Your task to perform on an android device: View the shopping cart on costco. Add "dell xps" to the cart on costco Image 0: 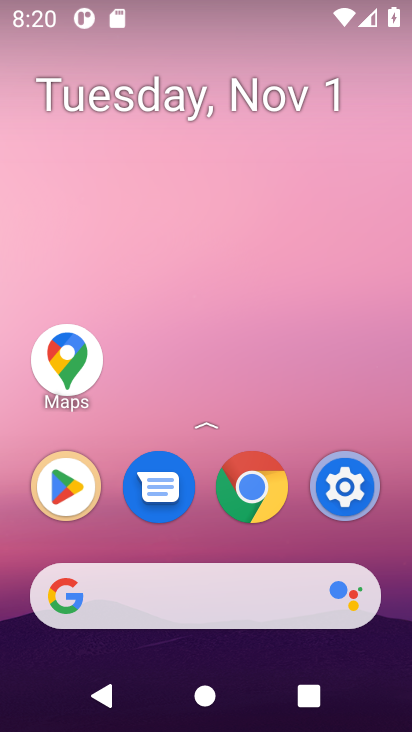
Step 0: drag from (201, 436) to (217, 28)
Your task to perform on an android device: View the shopping cart on costco. Add "dell xps" to the cart on costco Image 1: 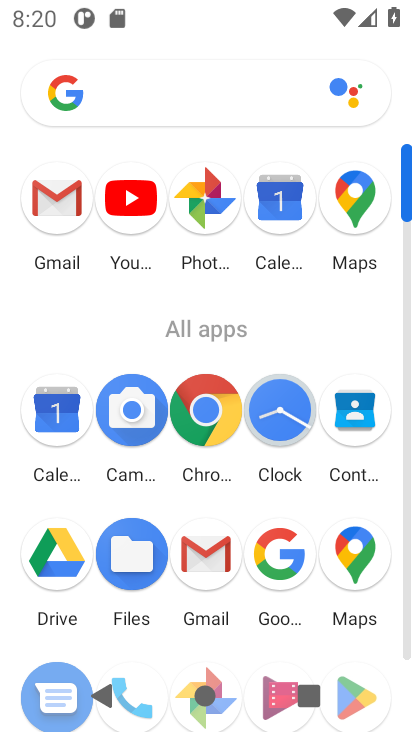
Step 1: click (203, 405)
Your task to perform on an android device: View the shopping cart on costco. Add "dell xps" to the cart on costco Image 2: 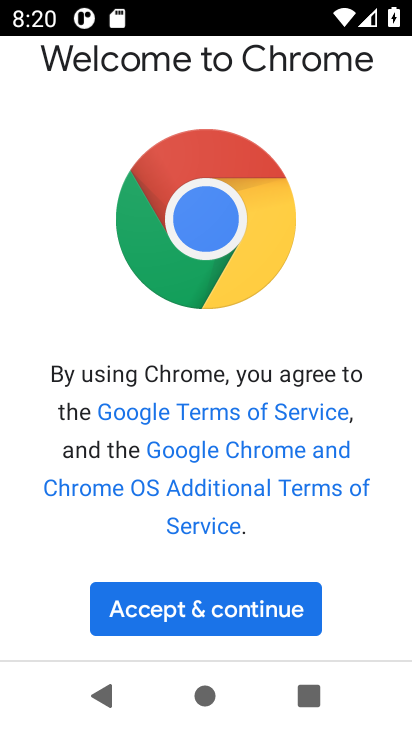
Step 2: click (199, 599)
Your task to perform on an android device: View the shopping cart on costco. Add "dell xps" to the cart on costco Image 3: 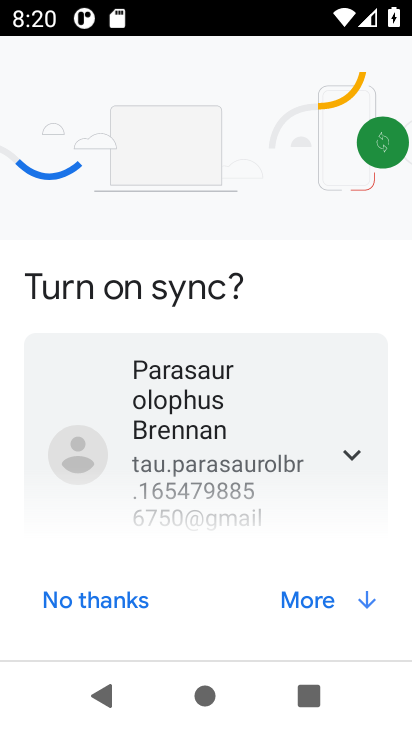
Step 3: click (321, 607)
Your task to perform on an android device: View the shopping cart on costco. Add "dell xps" to the cart on costco Image 4: 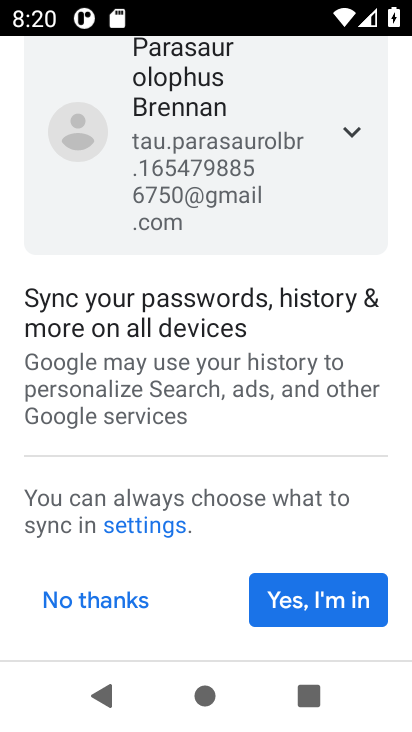
Step 4: click (321, 607)
Your task to perform on an android device: View the shopping cart on costco. Add "dell xps" to the cart on costco Image 5: 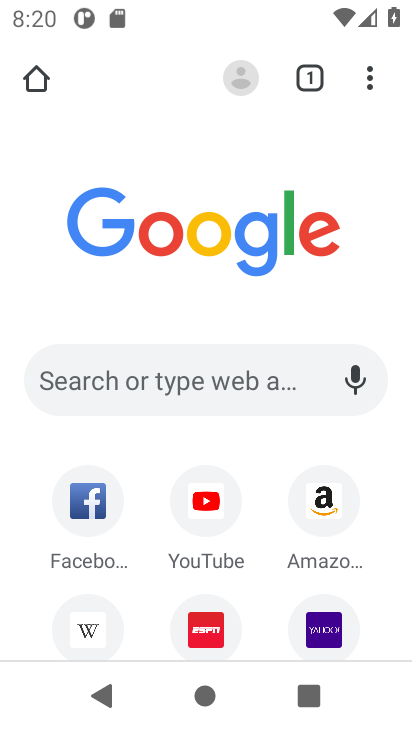
Step 5: click (113, 385)
Your task to perform on an android device: View the shopping cart on costco. Add "dell xps" to the cart on costco Image 6: 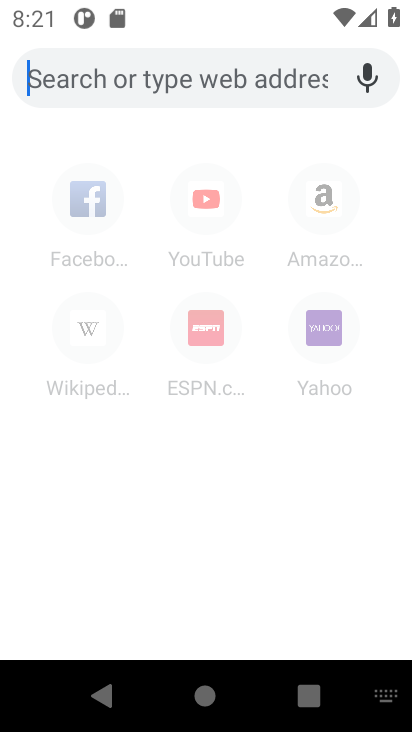
Step 6: type "costco"
Your task to perform on an android device: View the shopping cart on costco. Add "dell xps" to the cart on costco Image 7: 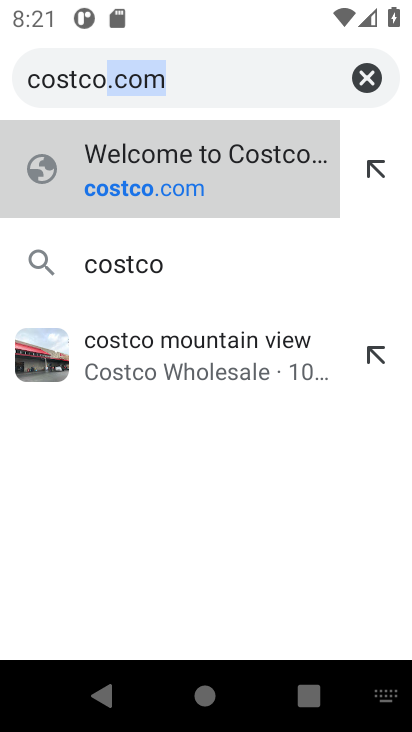
Step 7: click (121, 181)
Your task to perform on an android device: View the shopping cart on costco. Add "dell xps" to the cart on costco Image 8: 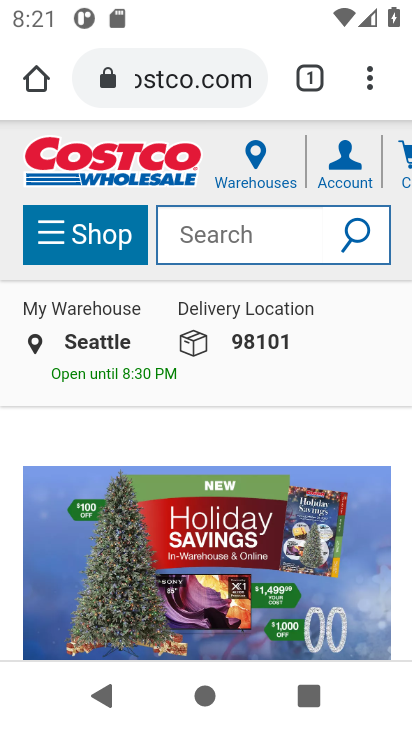
Step 8: click (193, 237)
Your task to perform on an android device: View the shopping cart on costco. Add "dell xps" to the cart on costco Image 9: 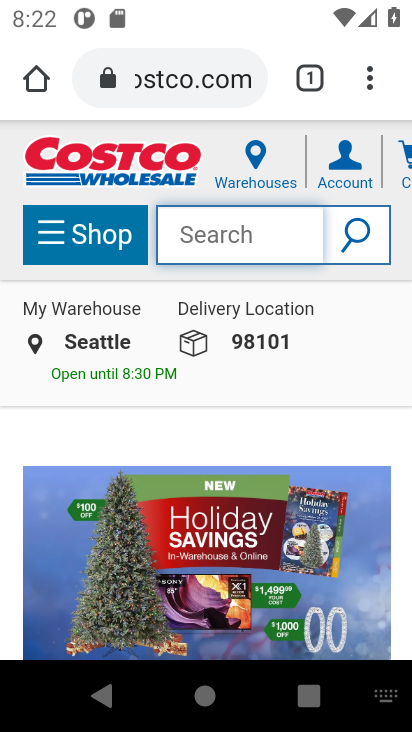
Step 9: type "dell xps"
Your task to perform on an android device: View the shopping cart on costco. Add "dell xps" to the cart on costco Image 10: 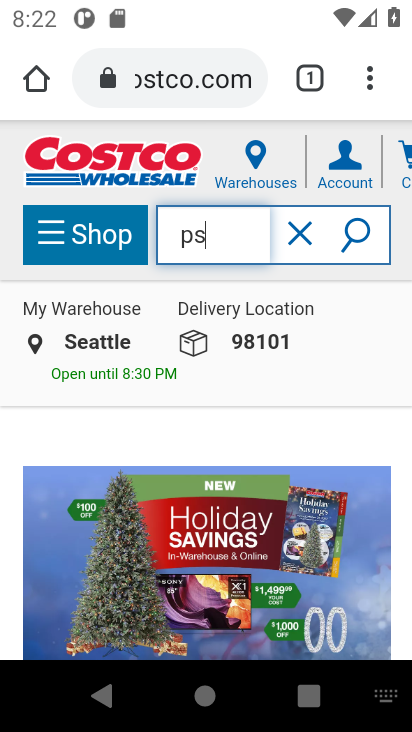
Step 10: type ""
Your task to perform on an android device: View the shopping cart on costco. Add "dell xps" to the cart on costco Image 11: 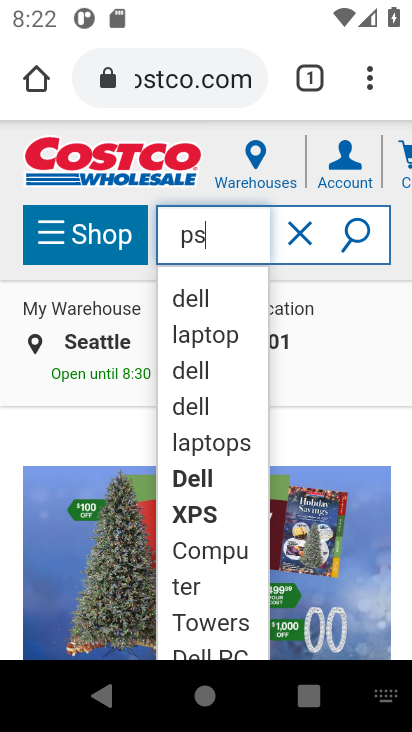
Step 11: click (206, 498)
Your task to perform on an android device: View the shopping cart on costco. Add "dell xps" to the cart on costco Image 12: 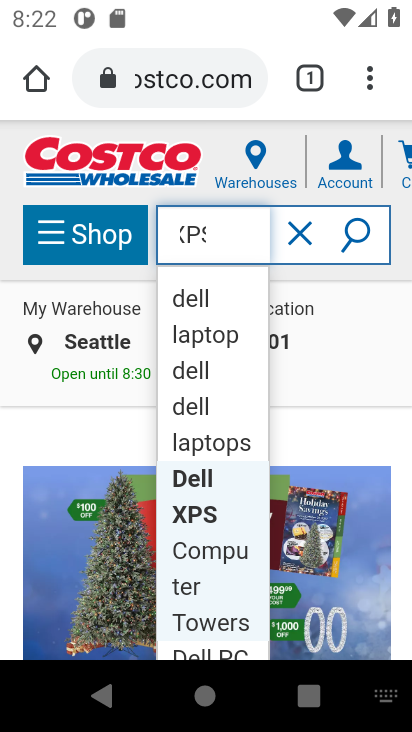
Step 12: click (358, 227)
Your task to perform on an android device: View the shopping cart on costco. Add "dell xps" to the cart on costco Image 13: 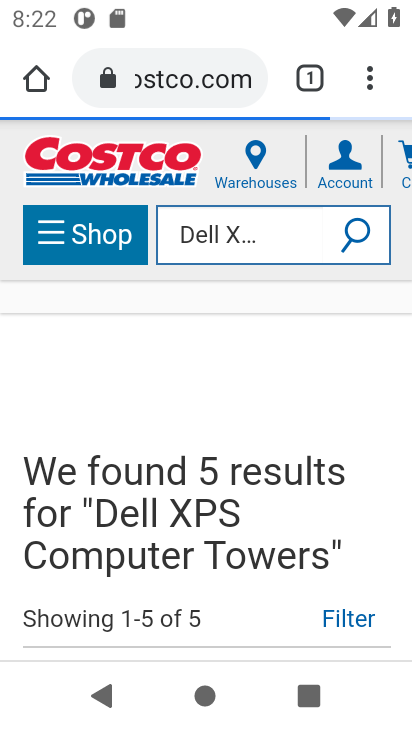
Step 13: drag from (214, 598) to (223, 178)
Your task to perform on an android device: View the shopping cart on costco. Add "dell xps" to the cart on costco Image 14: 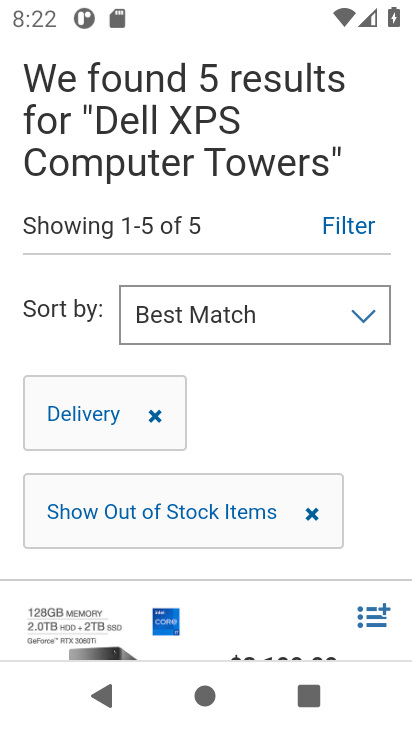
Step 14: drag from (226, 580) to (245, 190)
Your task to perform on an android device: View the shopping cart on costco. Add "dell xps" to the cart on costco Image 15: 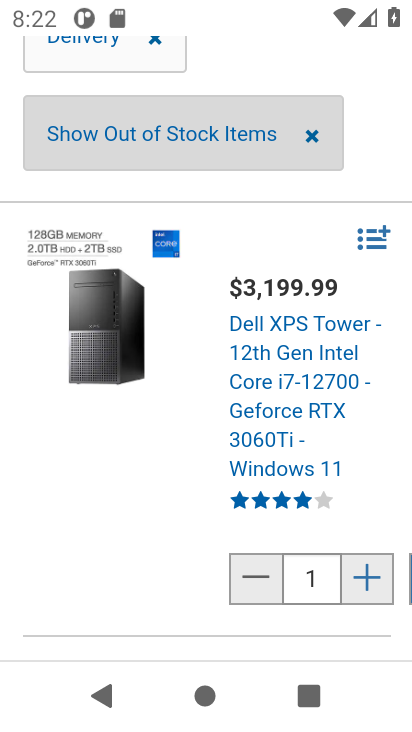
Step 15: drag from (200, 538) to (221, 188)
Your task to perform on an android device: View the shopping cart on costco. Add "dell xps" to the cart on costco Image 16: 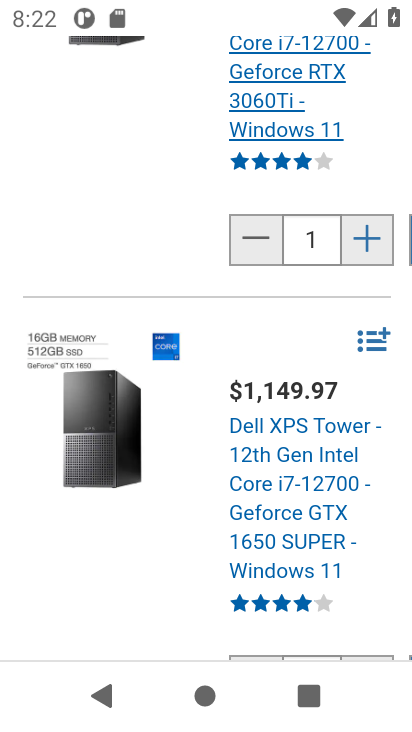
Step 16: click (252, 80)
Your task to perform on an android device: View the shopping cart on costco. Add "dell xps" to the cart on costco Image 17: 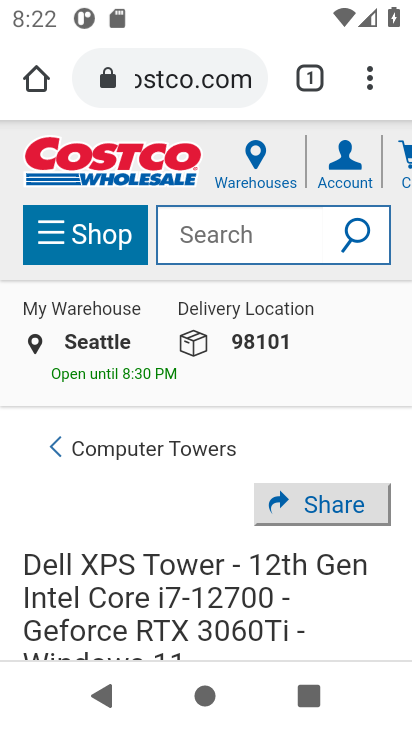
Step 17: drag from (193, 538) to (201, 199)
Your task to perform on an android device: View the shopping cart on costco. Add "dell xps" to the cart on costco Image 18: 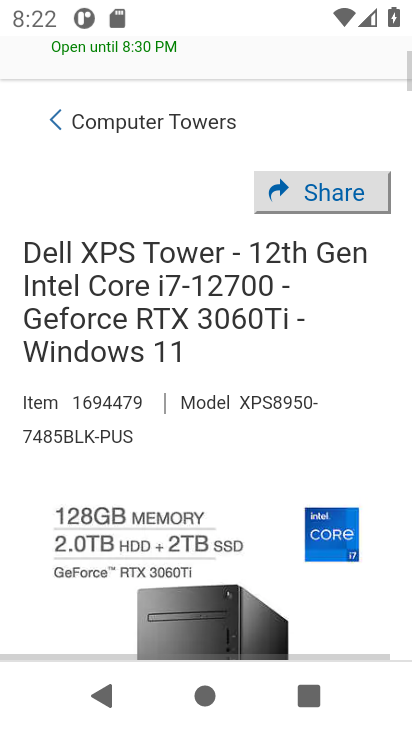
Step 18: drag from (199, 580) to (249, 154)
Your task to perform on an android device: View the shopping cart on costco. Add "dell xps" to the cart on costco Image 19: 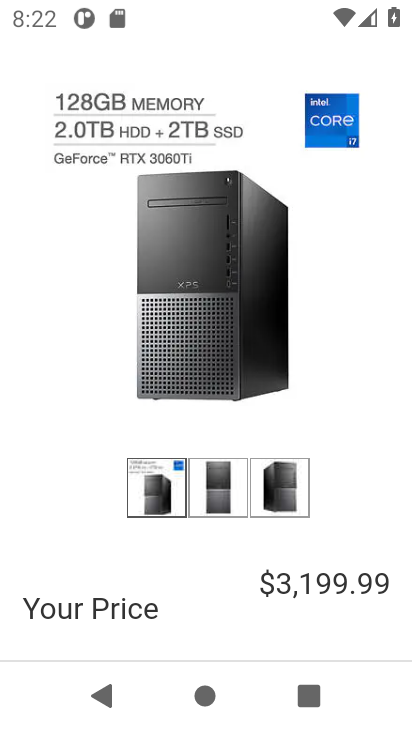
Step 19: drag from (211, 615) to (235, 299)
Your task to perform on an android device: View the shopping cart on costco. Add "dell xps" to the cart on costco Image 20: 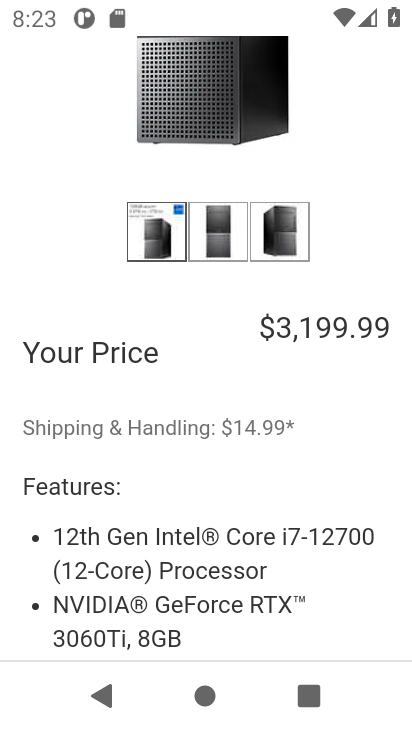
Step 20: drag from (220, 613) to (266, 253)
Your task to perform on an android device: View the shopping cart on costco. Add "dell xps" to the cart on costco Image 21: 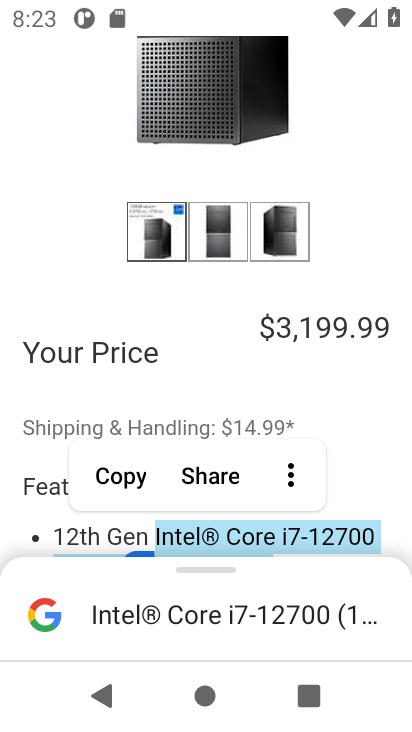
Step 21: click (121, 393)
Your task to perform on an android device: View the shopping cart on costco. Add "dell xps" to the cart on costco Image 22: 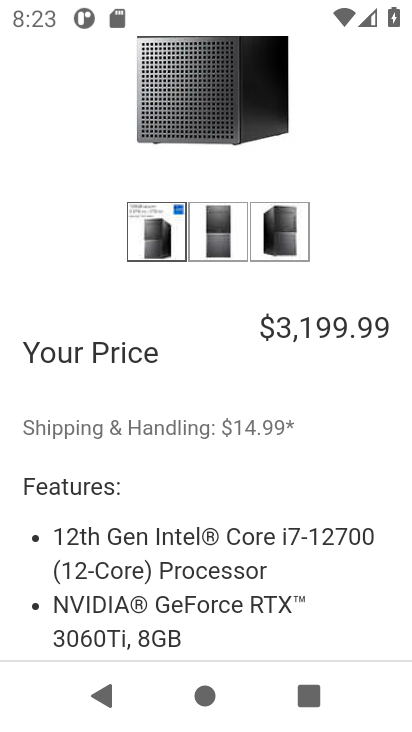
Step 22: drag from (344, 517) to (344, 199)
Your task to perform on an android device: View the shopping cart on costco. Add "dell xps" to the cart on costco Image 23: 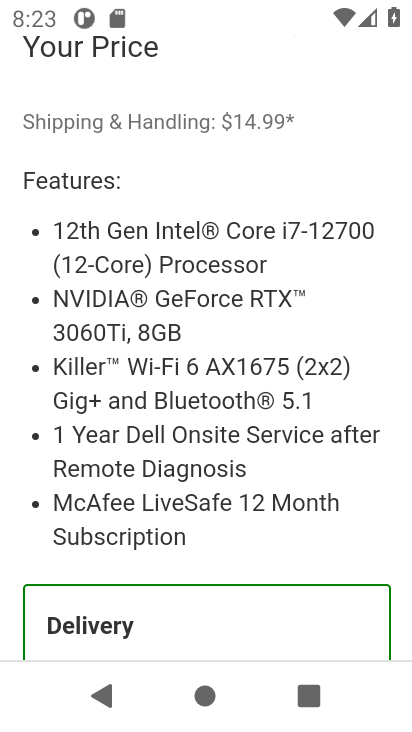
Step 23: drag from (268, 540) to (294, 168)
Your task to perform on an android device: View the shopping cart on costco. Add "dell xps" to the cart on costco Image 24: 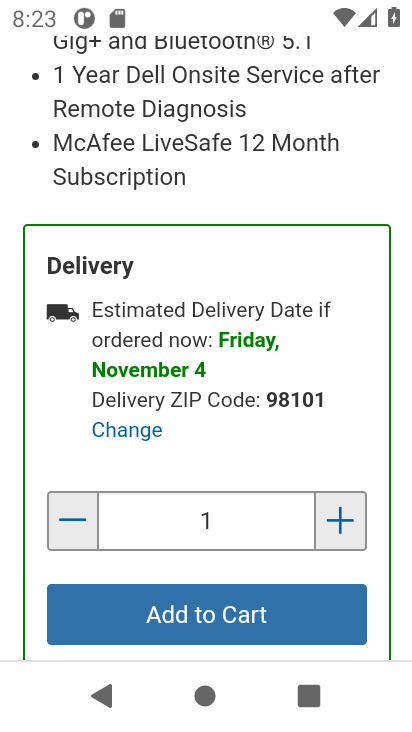
Step 24: click (202, 617)
Your task to perform on an android device: View the shopping cart on costco. Add "dell xps" to the cart on costco Image 25: 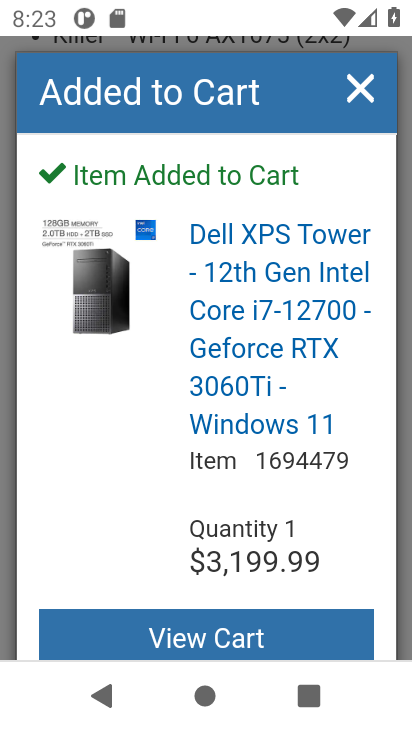
Step 25: click (232, 634)
Your task to perform on an android device: View the shopping cart on costco. Add "dell xps" to the cart on costco Image 26: 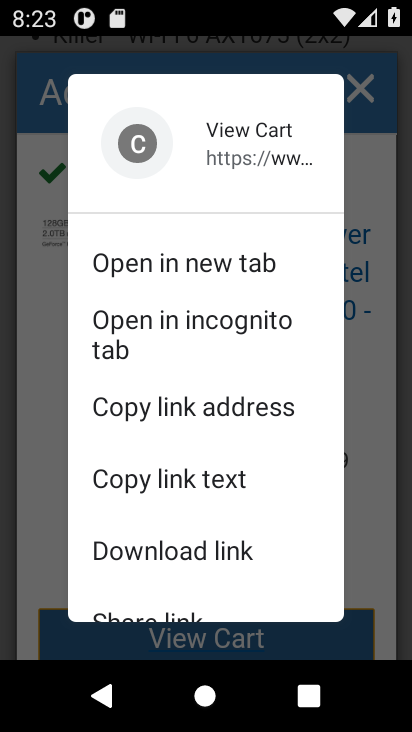
Step 26: click (38, 632)
Your task to perform on an android device: View the shopping cart on costco. Add "dell xps" to the cart on costco Image 27: 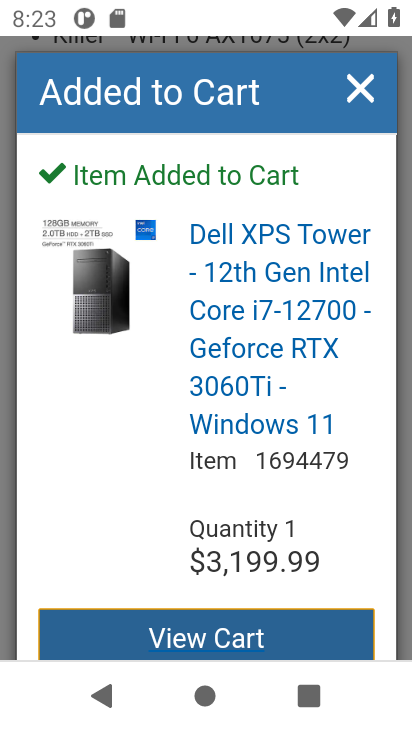
Step 27: click (189, 633)
Your task to perform on an android device: View the shopping cart on costco. Add "dell xps" to the cart on costco Image 28: 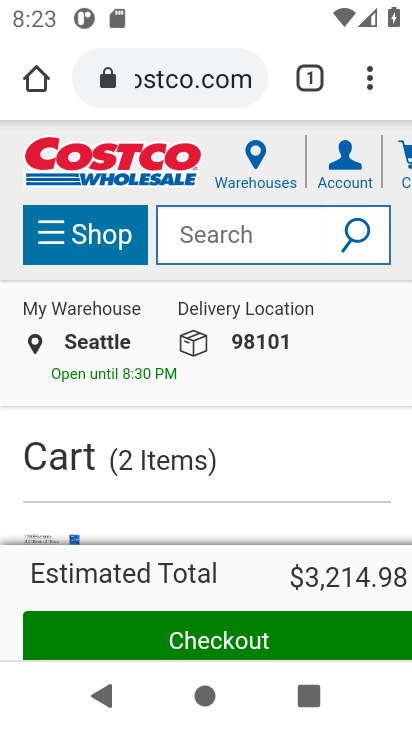
Step 28: task complete